Your task to perform on an android device: turn off translation in the chrome app Image 0: 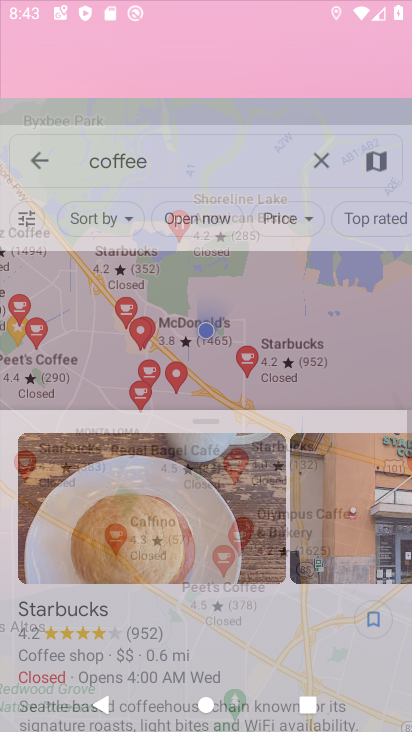
Step 0: click (300, 77)
Your task to perform on an android device: turn off translation in the chrome app Image 1: 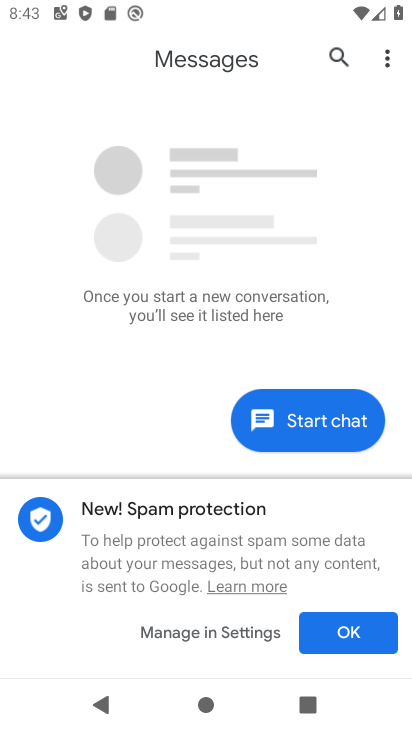
Step 1: press home button
Your task to perform on an android device: turn off translation in the chrome app Image 2: 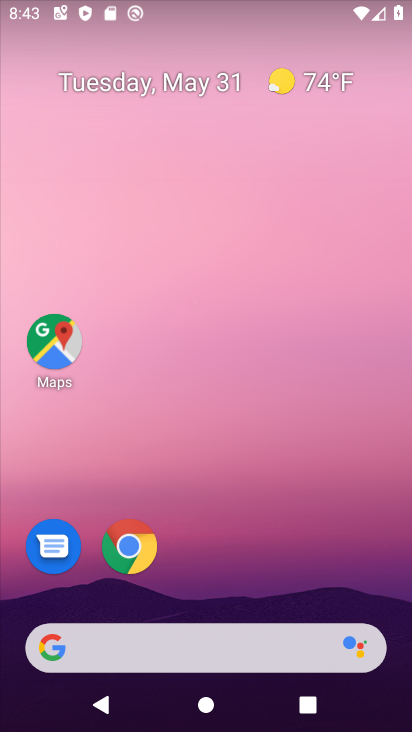
Step 2: click (126, 547)
Your task to perform on an android device: turn off translation in the chrome app Image 3: 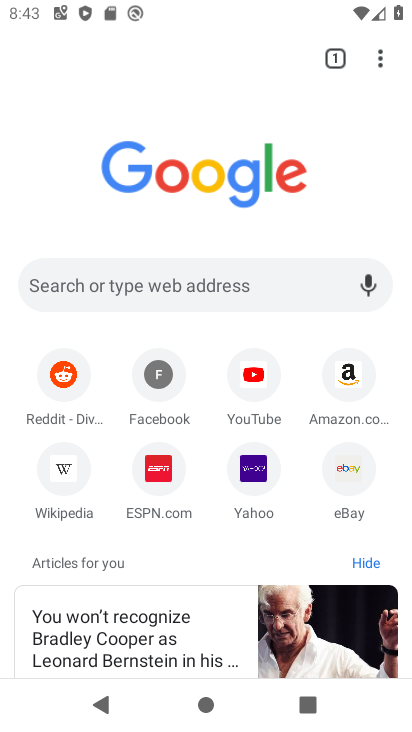
Step 3: click (375, 66)
Your task to perform on an android device: turn off translation in the chrome app Image 4: 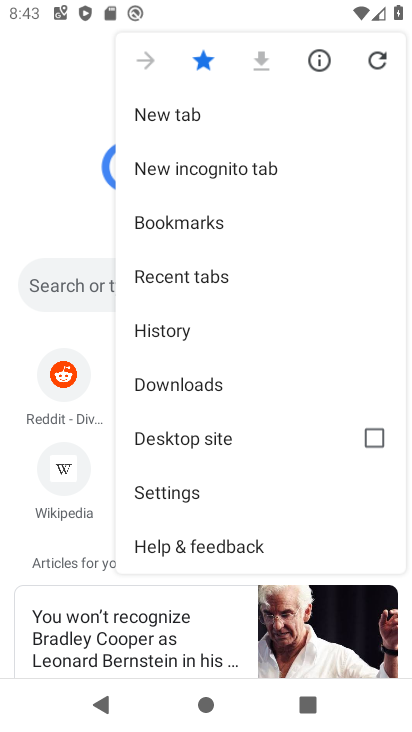
Step 4: click (162, 500)
Your task to perform on an android device: turn off translation in the chrome app Image 5: 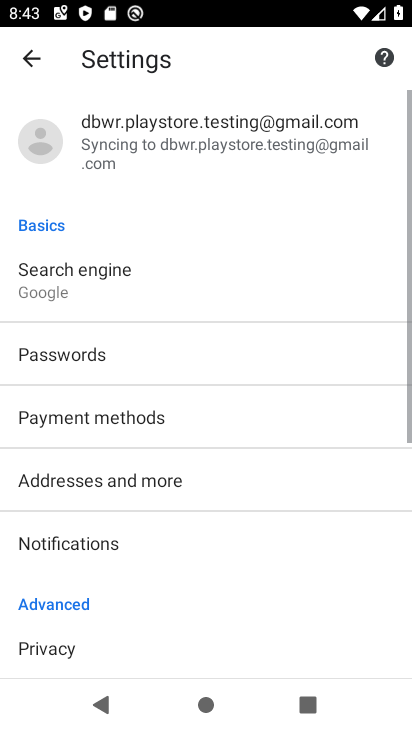
Step 5: drag from (271, 544) to (300, 94)
Your task to perform on an android device: turn off translation in the chrome app Image 6: 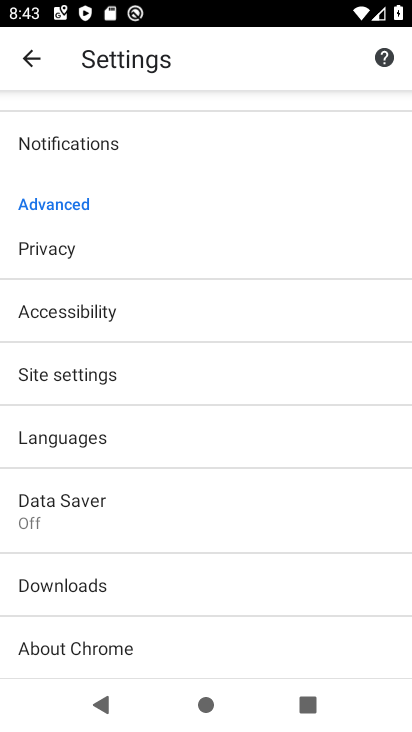
Step 6: click (142, 440)
Your task to perform on an android device: turn off translation in the chrome app Image 7: 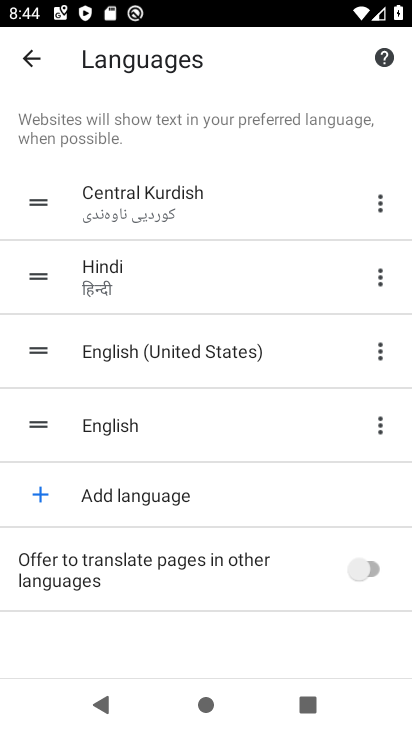
Step 7: task complete